Your task to perform on an android device: check battery use Image 0: 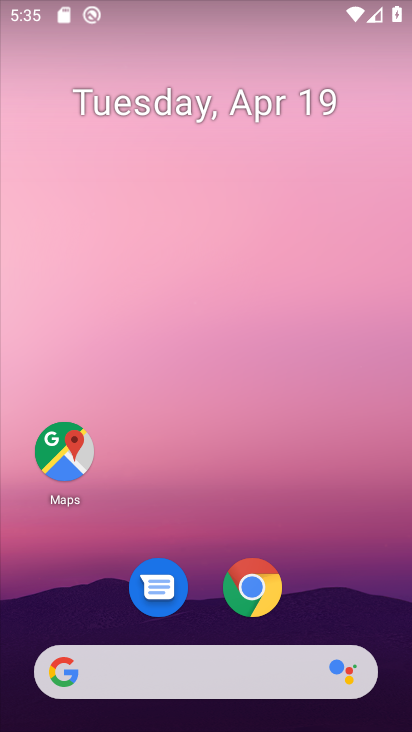
Step 0: drag from (373, 531) to (355, 36)
Your task to perform on an android device: check battery use Image 1: 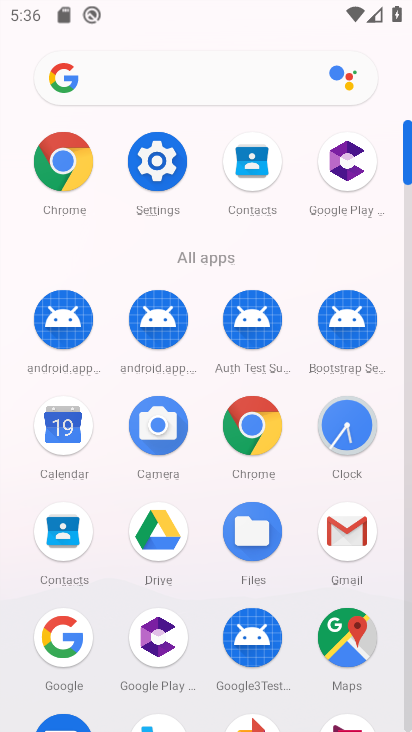
Step 1: click (166, 180)
Your task to perform on an android device: check battery use Image 2: 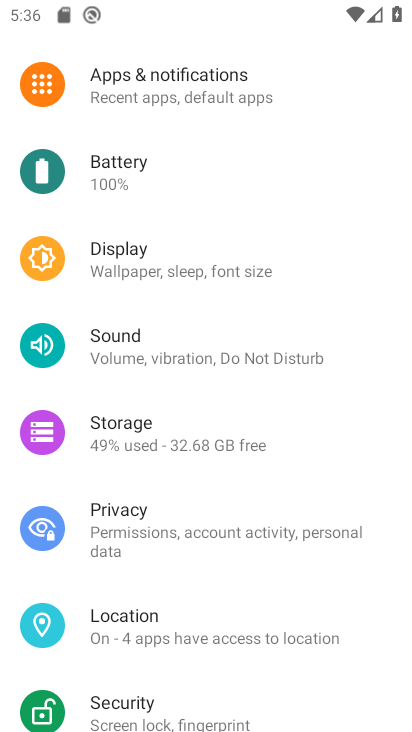
Step 2: click (175, 173)
Your task to perform on an android device: check battery use Image 3: 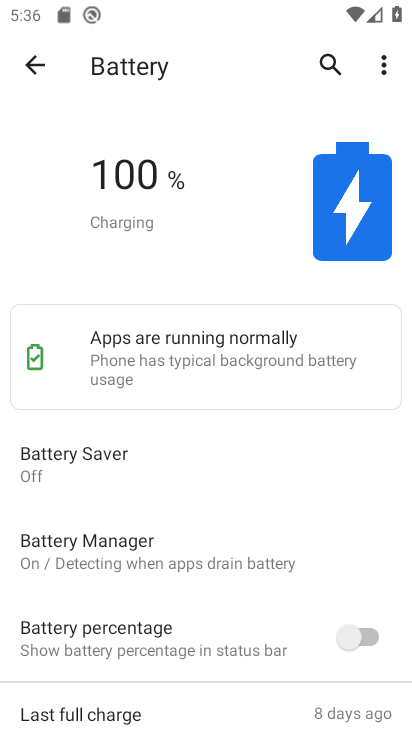
Step 3: task complete